Your task to perform on an android device: Open Google Chrome and click the shortcut for Amazon.com Image 0: 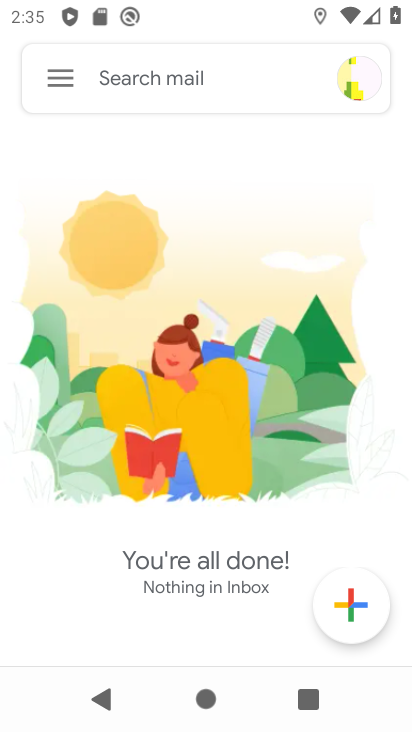
Step 0: press home button
Your task to perform on an android device: Open Google Chrome and click the shortcut for Amazon.com Image 1: 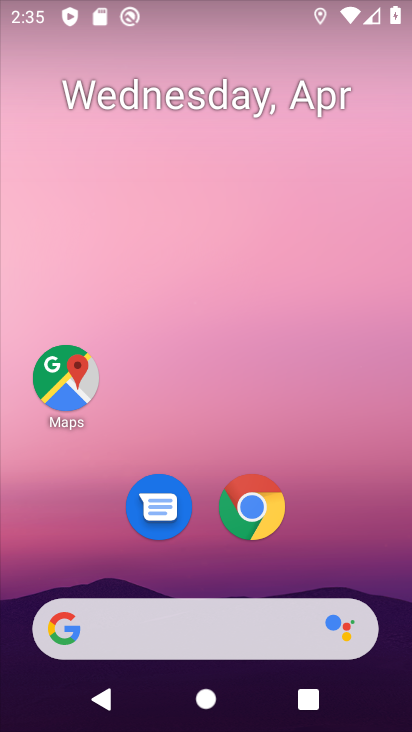
Step 1: click (248, 501)
Your task to perform on an android device: Open Google Chrome and click the shortcut for Amazon.com Image 2: 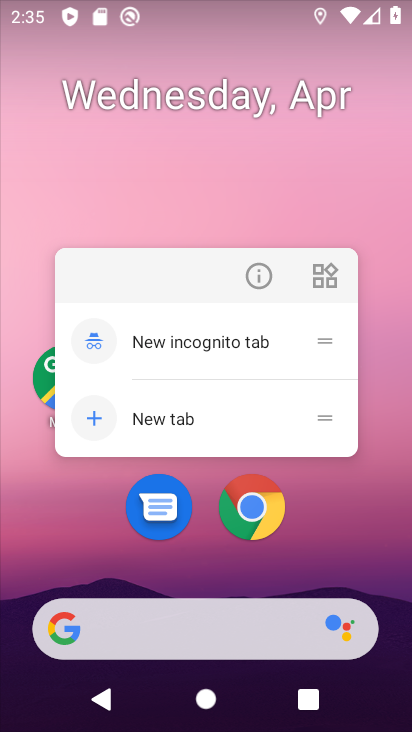
Step 2: click (248, 501)
Your task to perform on an android device: Open Google Chrome and click the shortcut for Amazon.com Image 3: 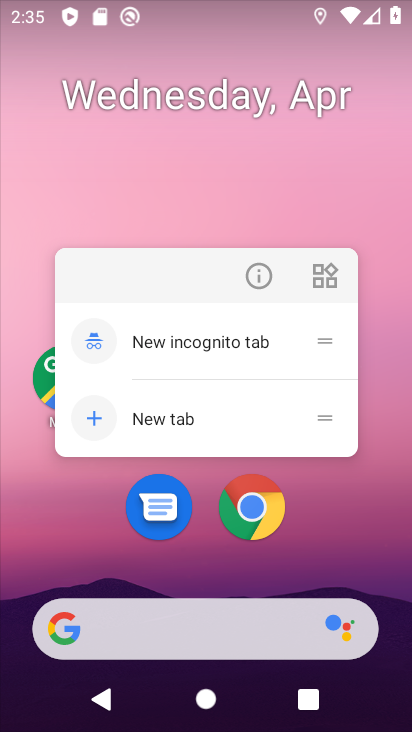
Step 3: click (248, 501)
Your task to perform on an android device: Open Google Chrome and click the shortcut for Amazon.com Image 4: 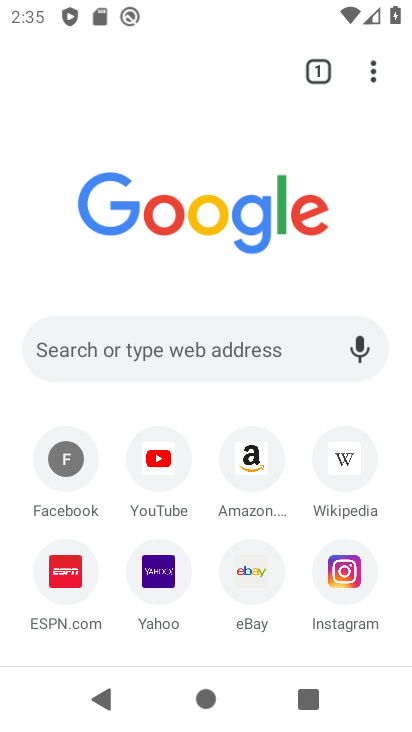
Step 4: click (258, 466)
Your task to perform on an android device: Open Google Chrome and click the shortcut for Amazon.com Image 5: 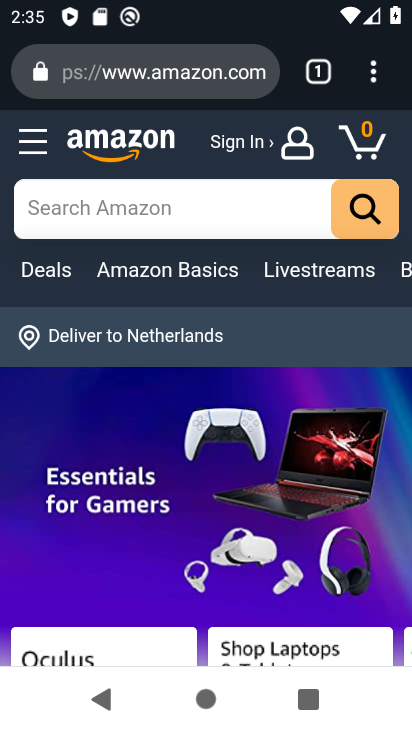
Step 5: task complete